Your task to perform on an android device: Clear the cart on bestbuy.com. Add razer blade to the cart on bestbuy.com Image 0: 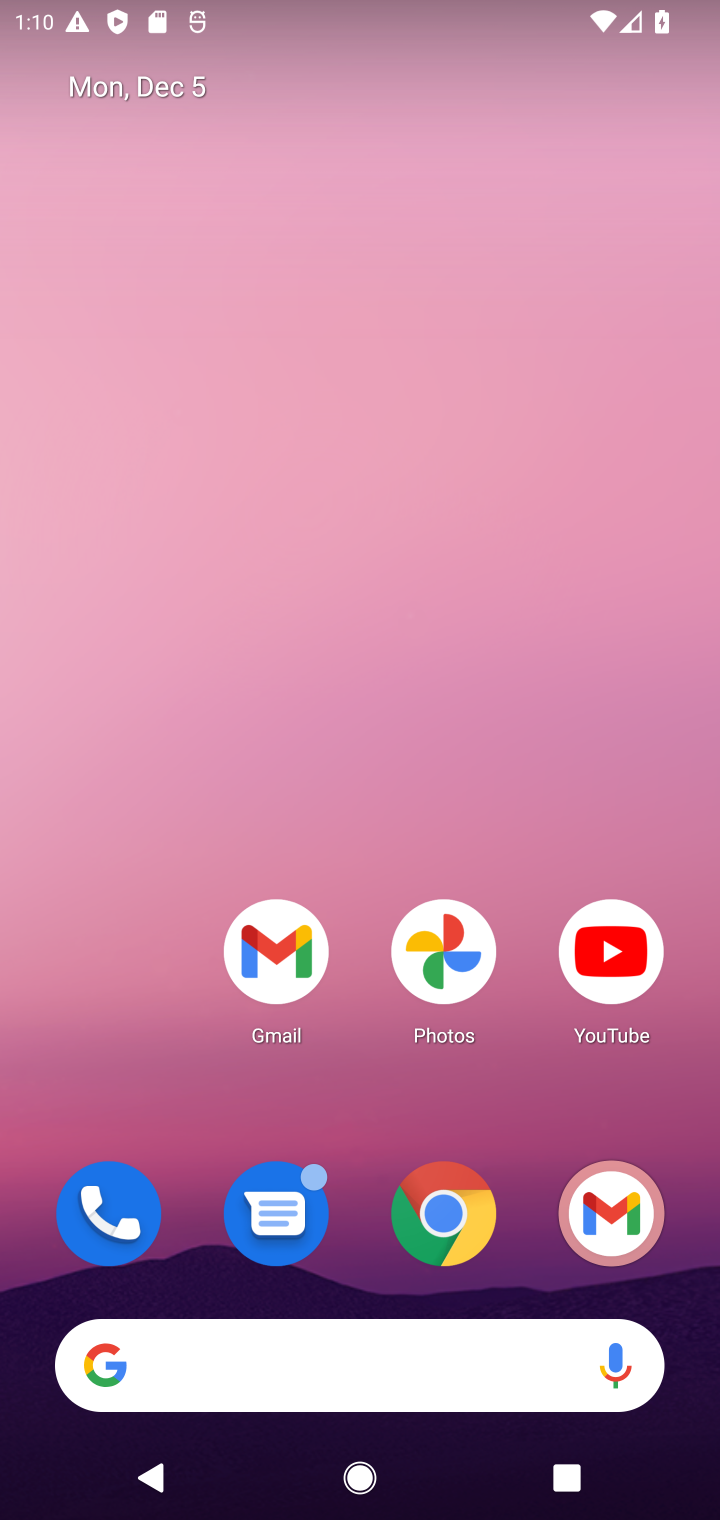
Step 0: click (456, 1219)
Your task to perform on an android device: Clear the cart on bestbuy.com. Add razer blade to the cart on bestbuy.com Image 1: 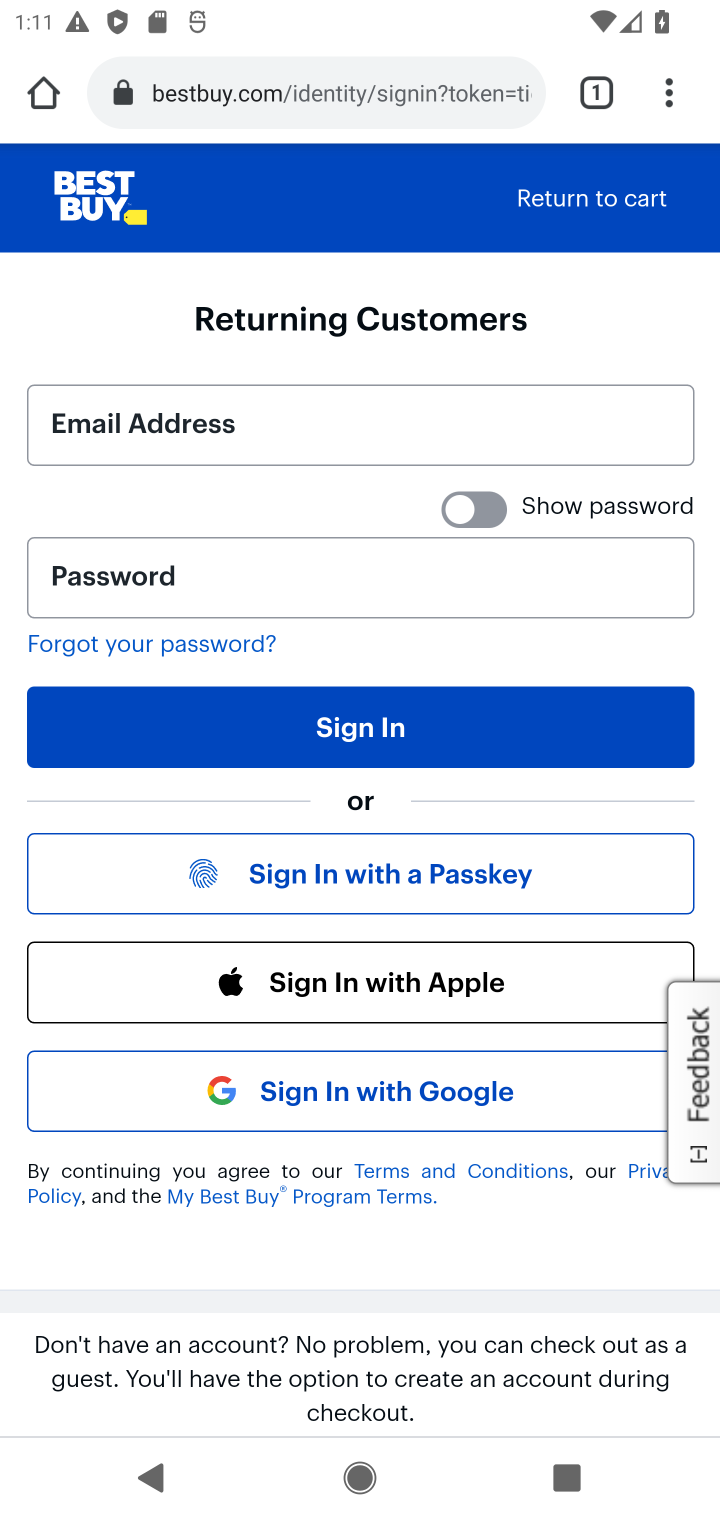
Step 1: click (612, 211)
Your task to perform on an android device: Clear the cart on bestbuy.com. Add razer blade to the cart on bestbuy.com Image 2: 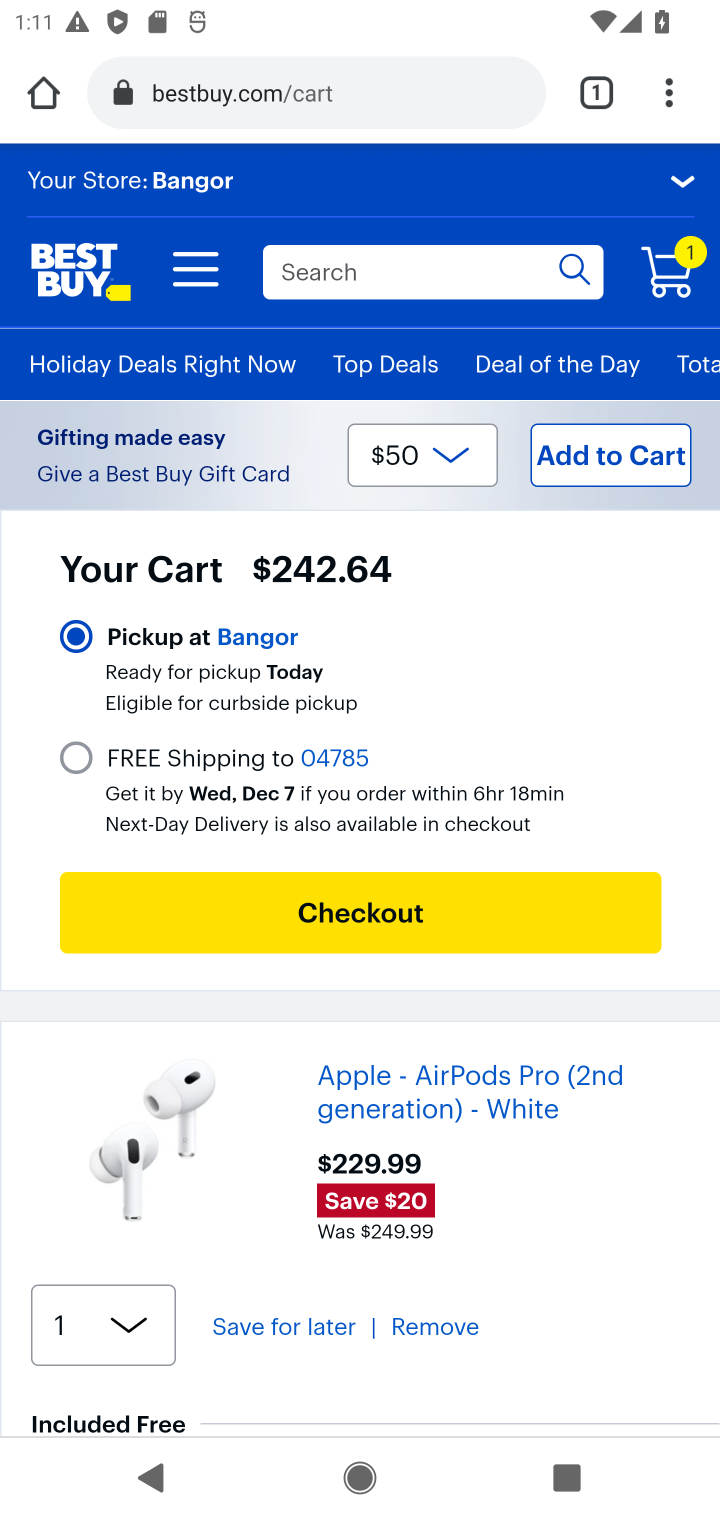
Step 2: click (412, 1323)
Your task to perform on an android device: Clear the cart on bestbuy.com. Add razer blade to the cart on bestbuy.com Image 3: 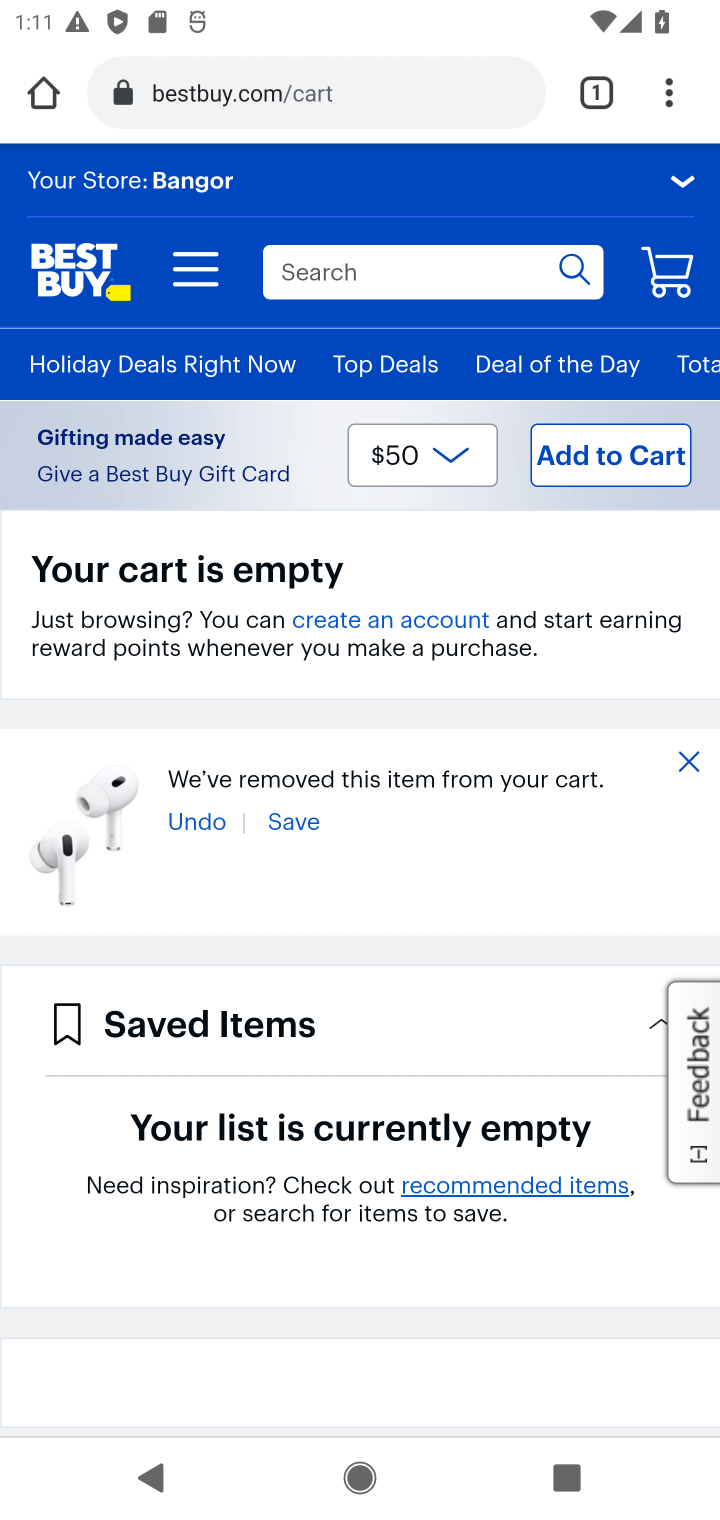
Step 3: click (383, 262)
Your task to perform on an android device: Clear the cart on bestbuy.com. Add razer blade to the cart on bestbuy.com Image 4: 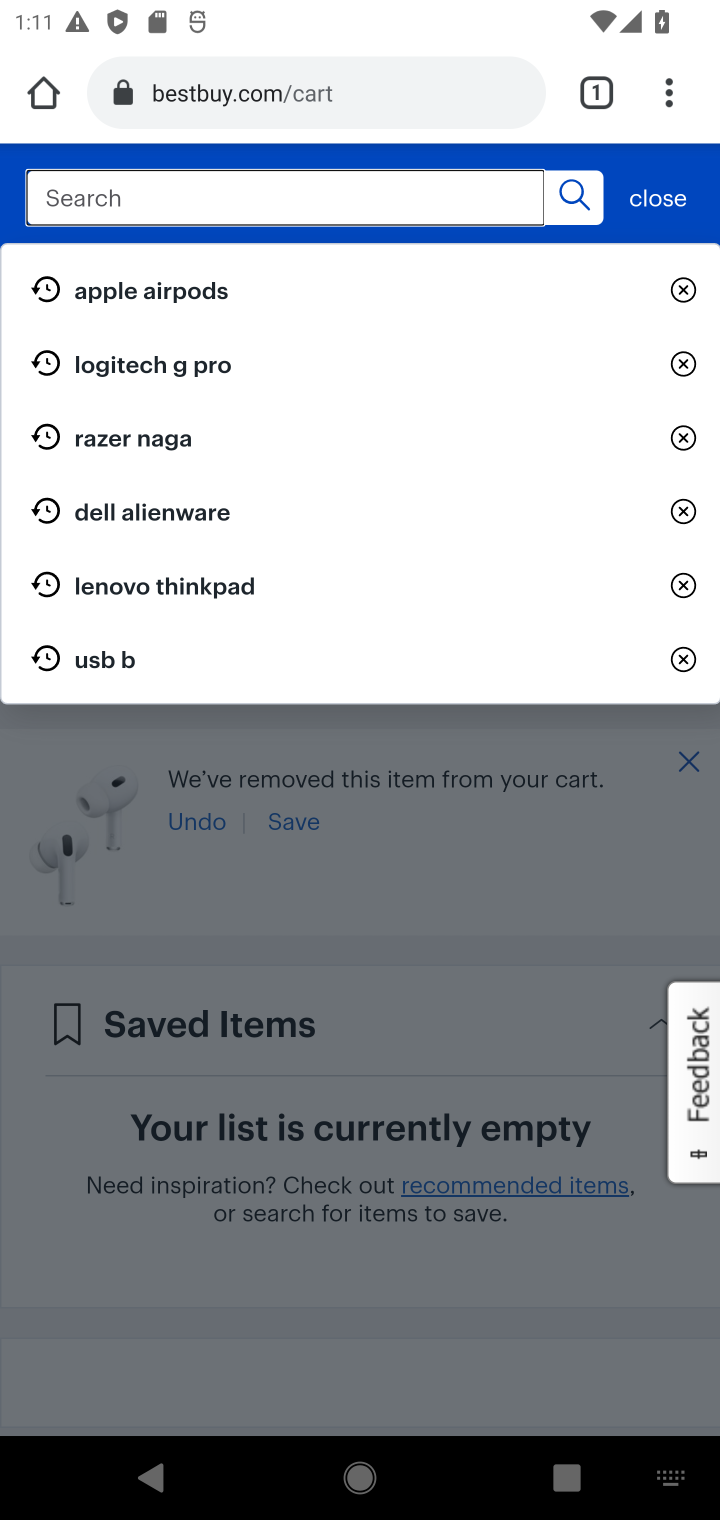
Step 4: type "razer blade"
Your task to perform on an android device: Clear the cart on bestbuy.com. Add razer blade to the cart on bestbuy.com Image 5: 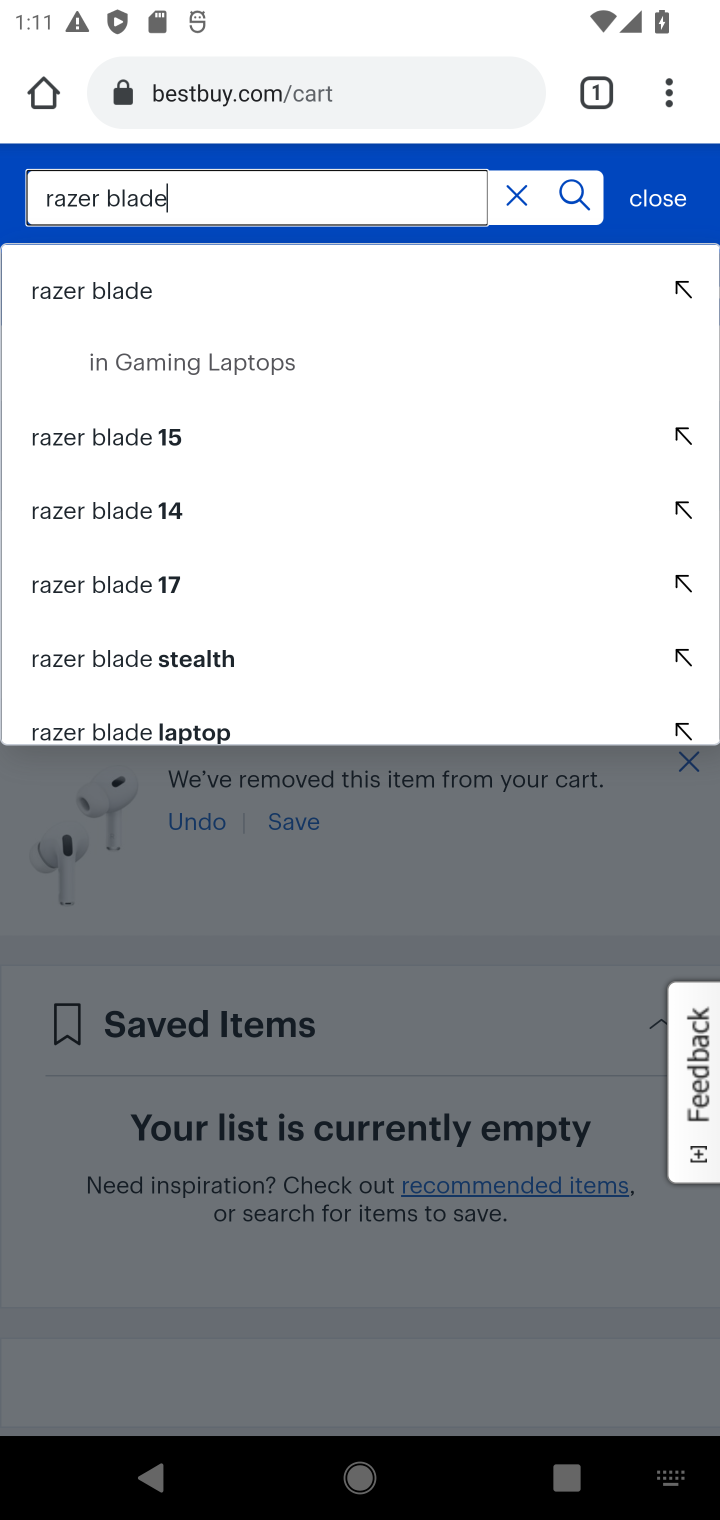
Step 5: click (121, 295)
Your task to perform on an android device: Clear the cart on bestbuy.com. Add razer blade to the cart on bestbuy.com Image 6: 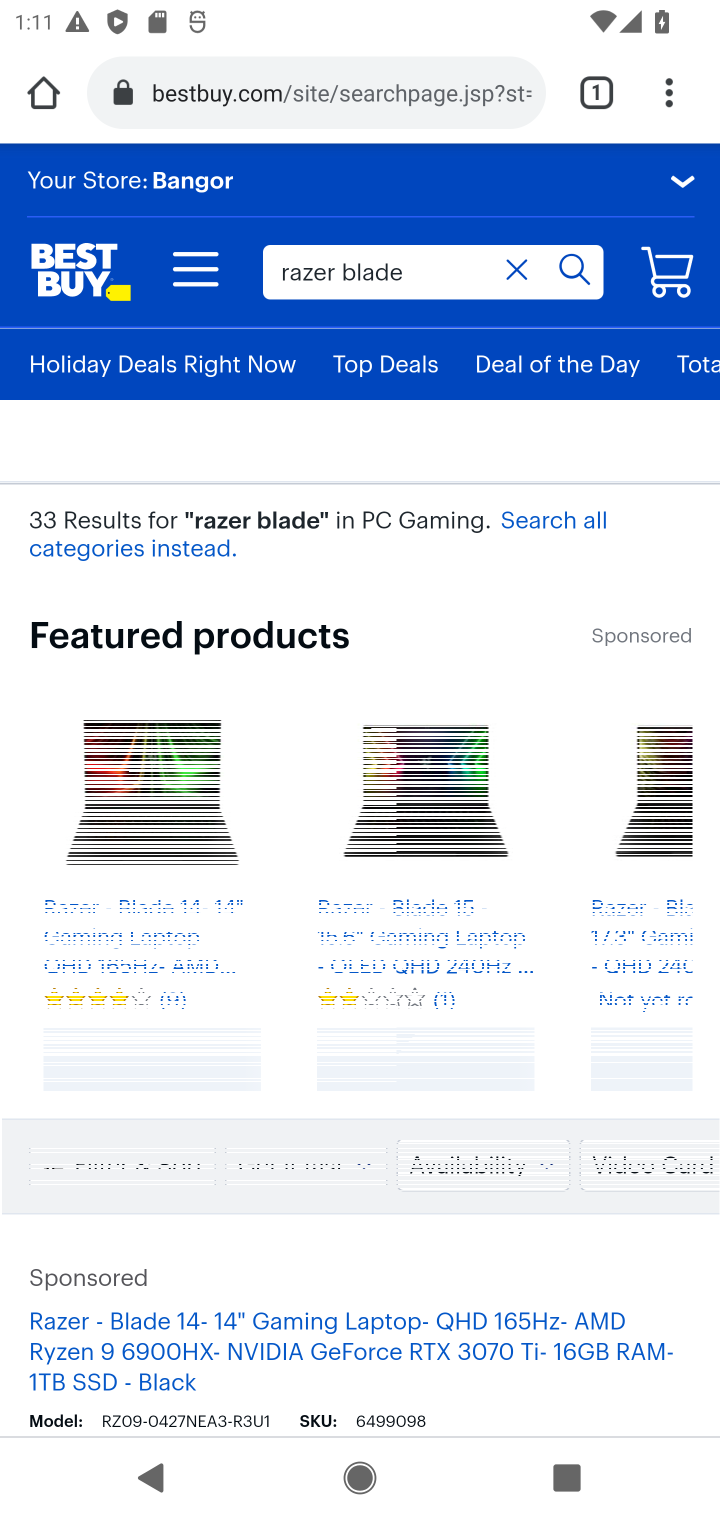
Step 6: drag from (288, 1049) to (306, 538)
Your task to perform on an android device: Clear the cart on bestbuy.com. Add razer blade to the cart on bestbuy.com Image 7: 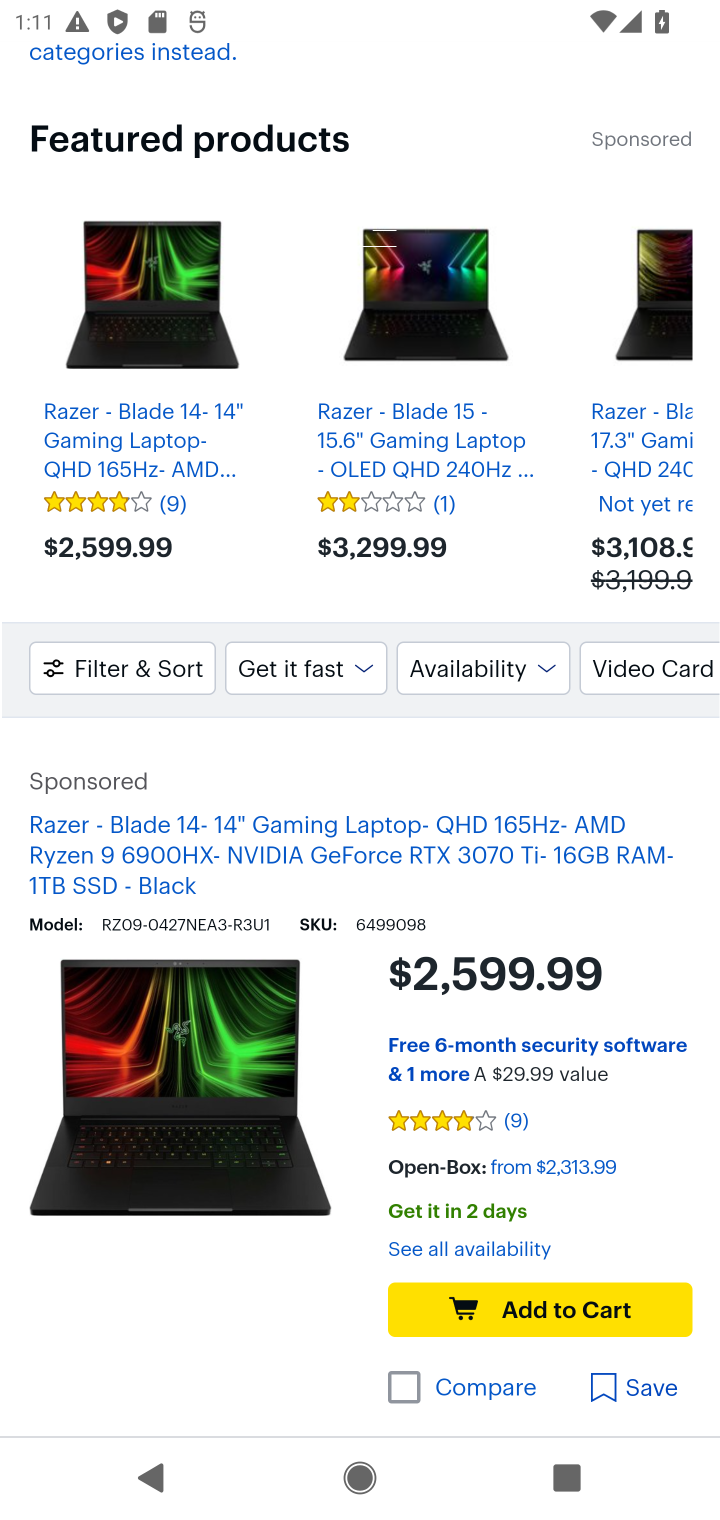
Step 7: drag from (367, 1067) to (383, 784)
Your task to perform on an android device: Clear the cart on bestbuy.com. Add razer blade to the cart on bestbuy.com Image 8: 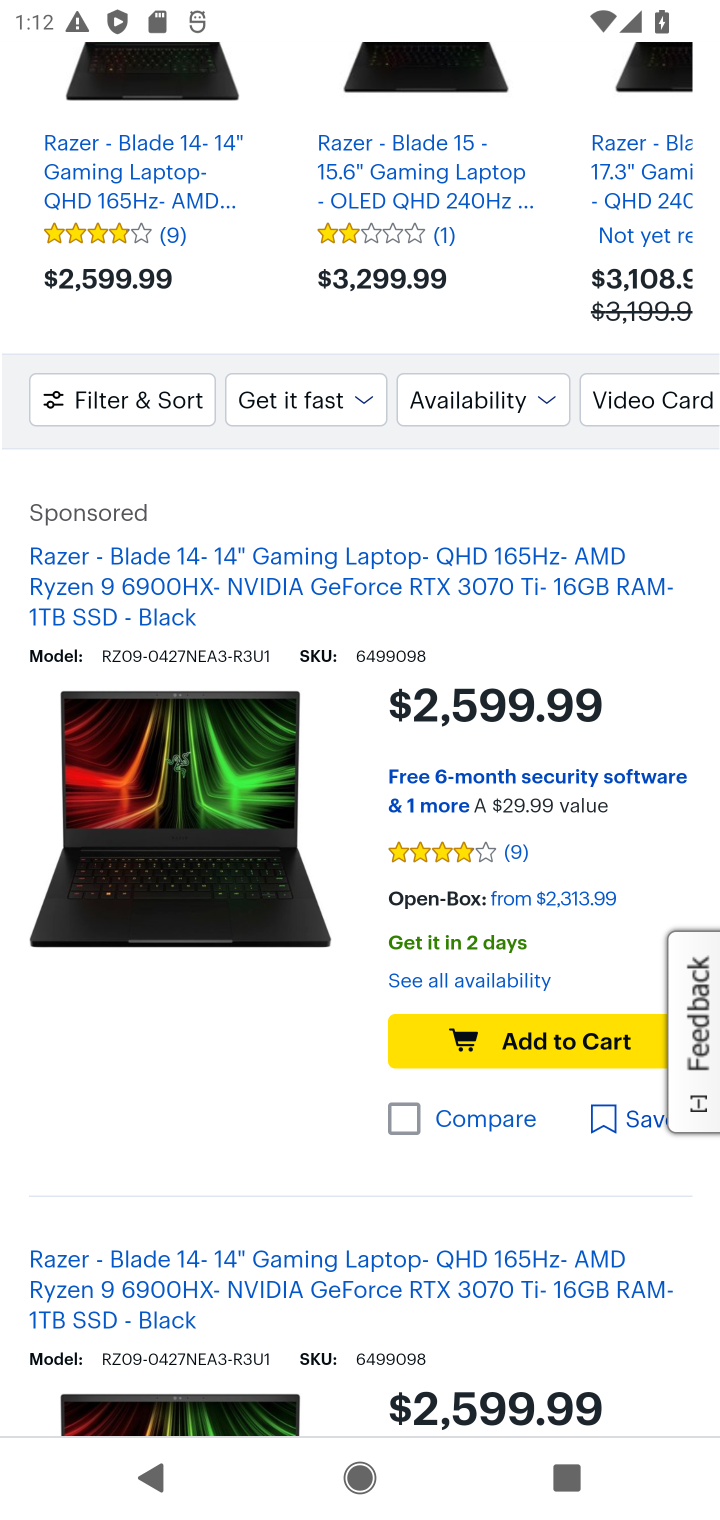
Step 8: click (567, 1047)
Your task to perform on an android device: Clear the cart on bestbuy.com. Add razer blade to the cart on bestbuy.com Image 9: 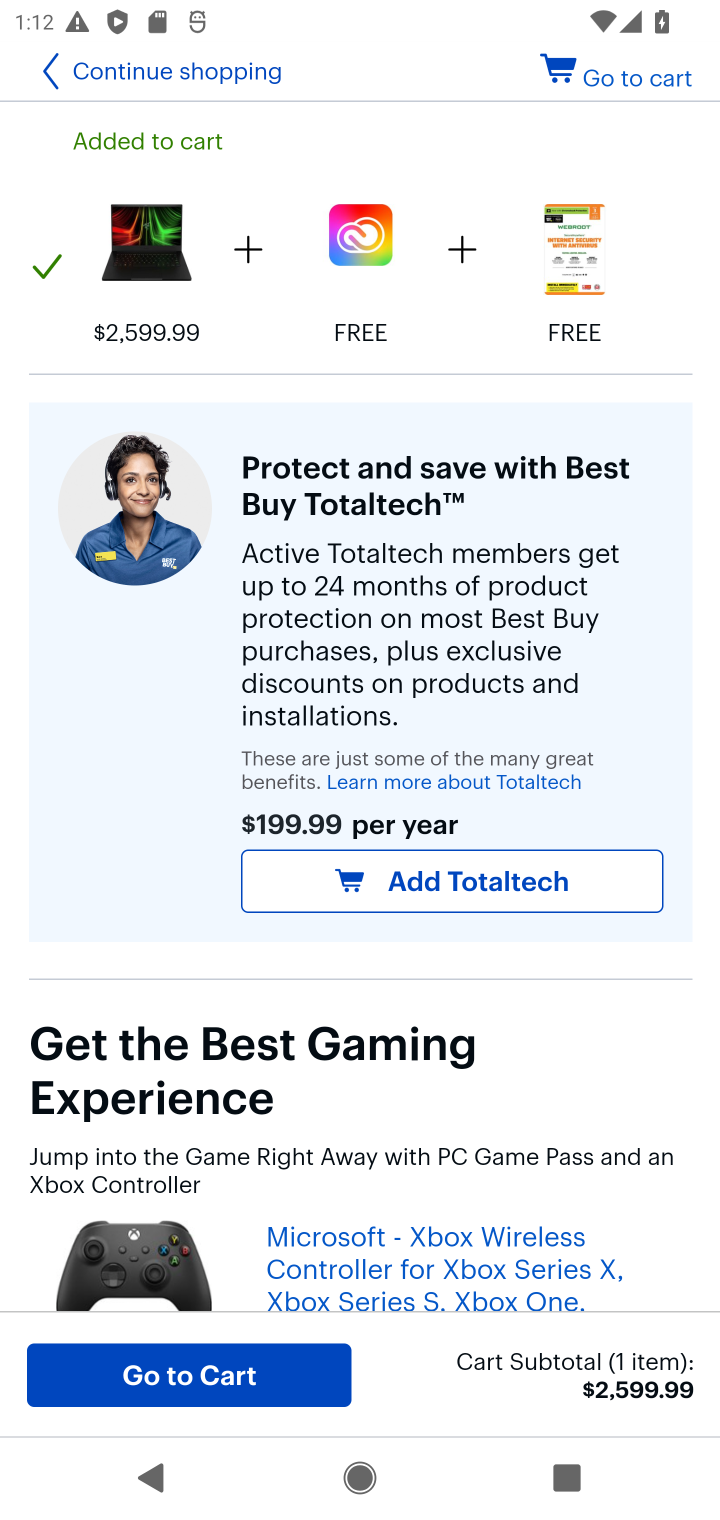
Step 9: task complete